Your task to perform on an android device: Go to Maps Image 0: 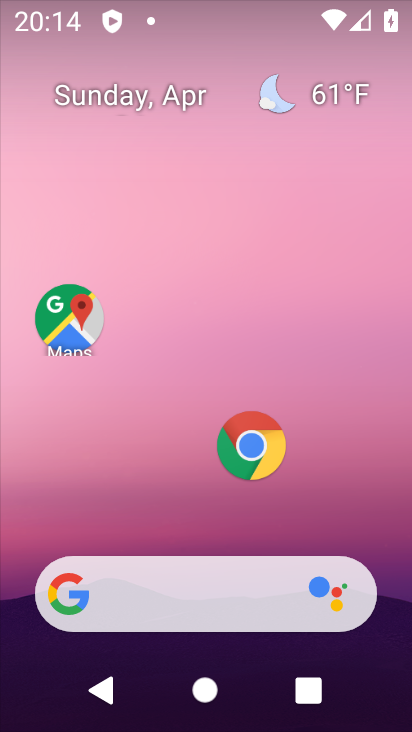
Step 0: drag from (191, 538) to (205, 126)
Your task to perform on an android device: Go to Maps Image 1: 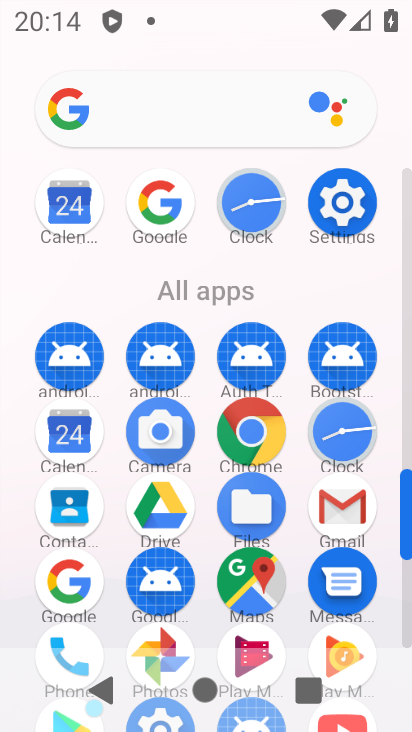
Step 1: drag from (95, 534) to (111, 443)
Your task to perform on an android device: Go to Maps Image 2: 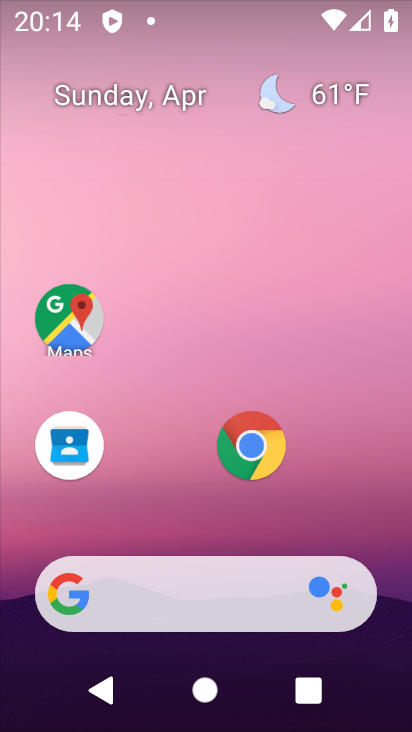
Step 2: drag from (175, 529) to (179, 192)
Your task to perform on an android device: Go to Maps Image 3: 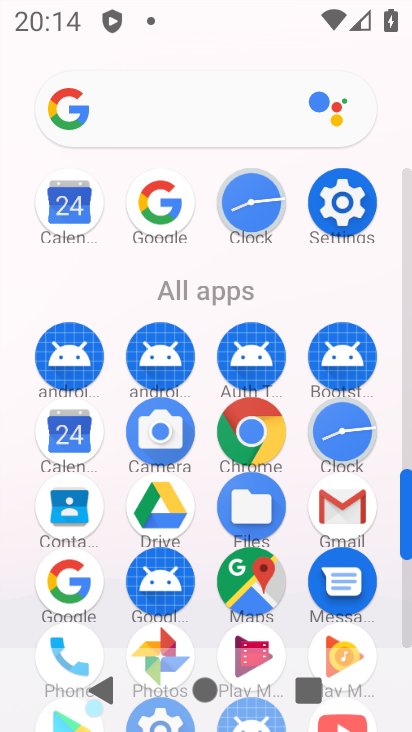
Step 3: click (239, 580)
Your task to perform on an android device: Go to Maps Image 4: 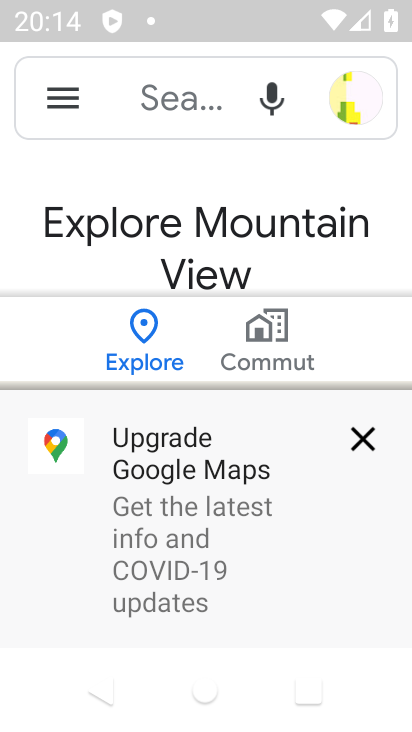
Step 4: click (363, 438)
Your task to perform on an android device: Go to Maps Image 5: 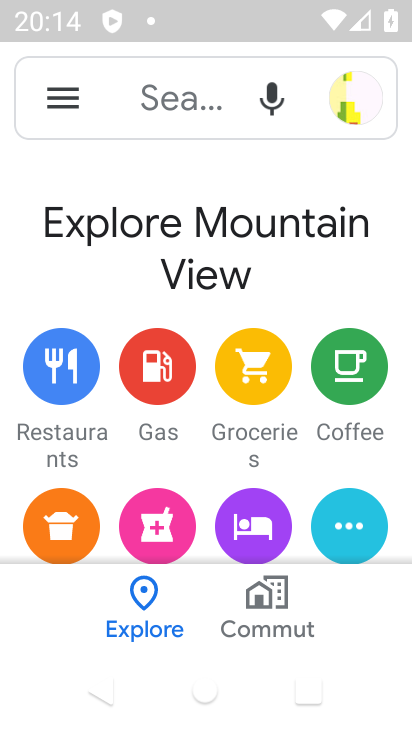
Step 5: click (73, 103)
Your task to perform on an android device: Go to Maps Image 6: 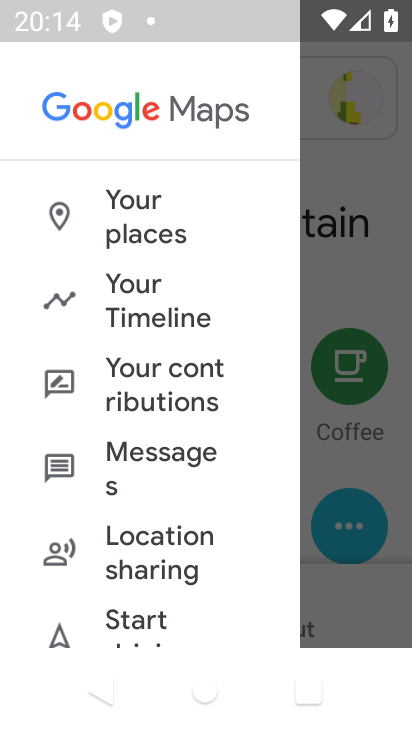
Step 6: task complete